Your task to perform on an android device: Search for Italian restaurants on Maps Image 0: 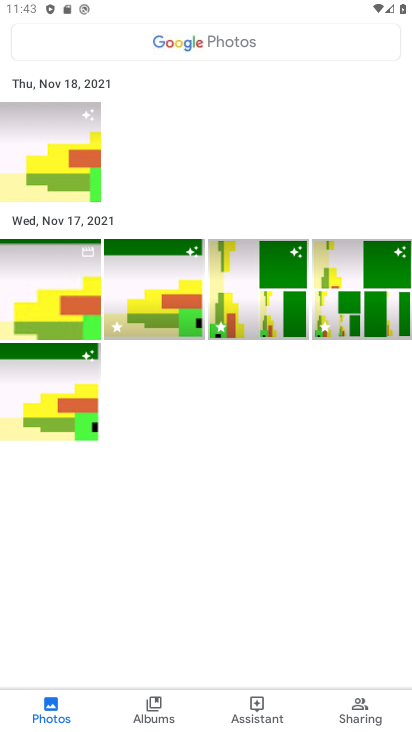
Step 0: press home button
Your task to perform on an android device: Search for Italian restaurants on Maps Image 1: 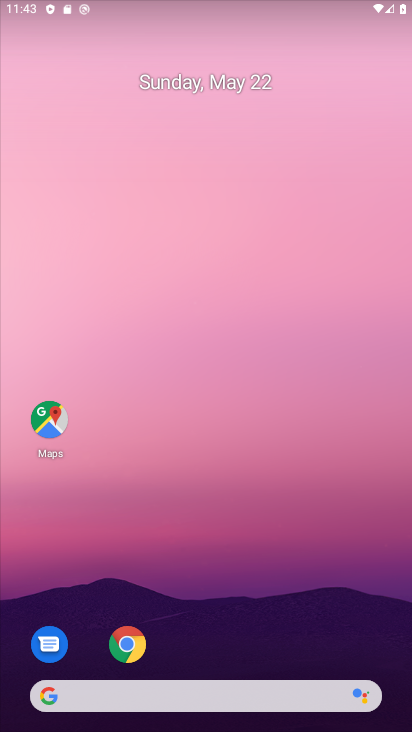
Step 1: drag from (365, 648) to (199, 70)
Your task to perform on an android device: Search for Italian restaurants on Maps Image 2: 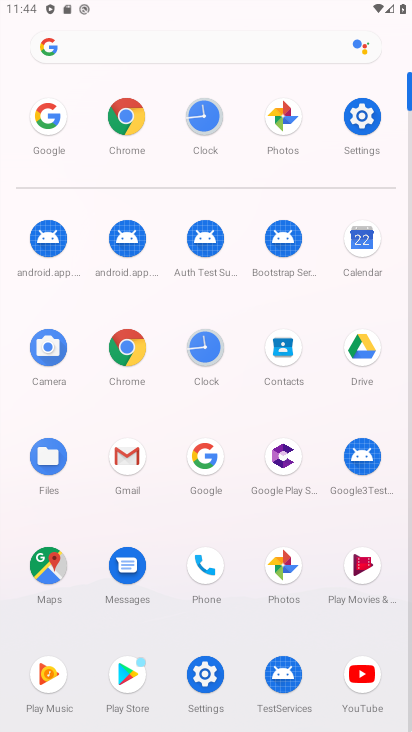
Step 2: click (50, 551)
Your task to perform on an android device: Search for Italian restaurants on Maps Image 3: 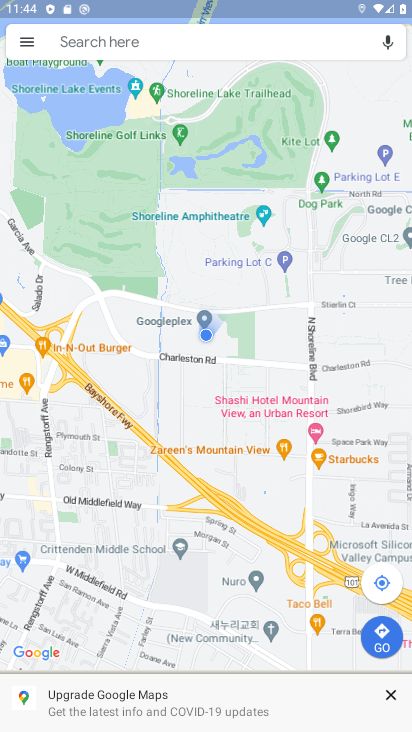
Step 3: click (130, 47)
Your task to perform on an android device: Search for Italian restaurants on Maps Image 4: 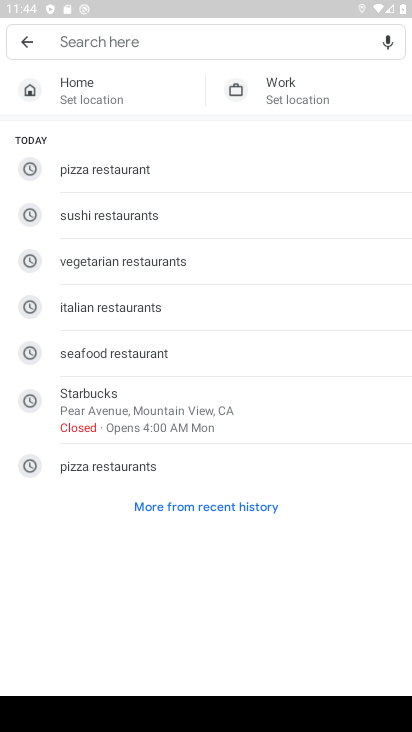
Step 4: click (188, 316)
Your task to perform on an android device: Search for Italian restaurants on Maps Image 5: 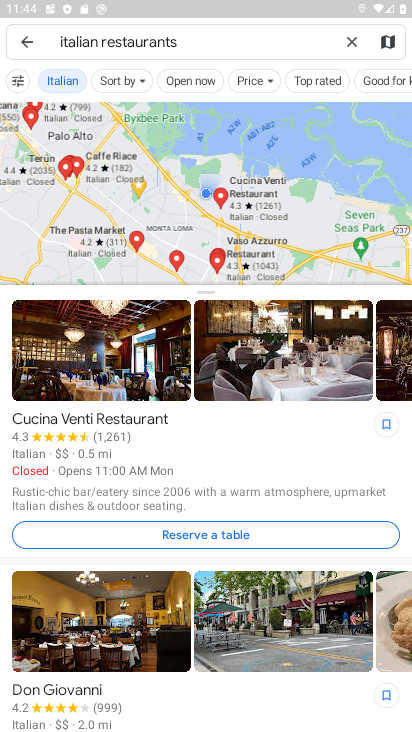
Step 5: task complete